Your task to perform on an android device: check storage Image 0: 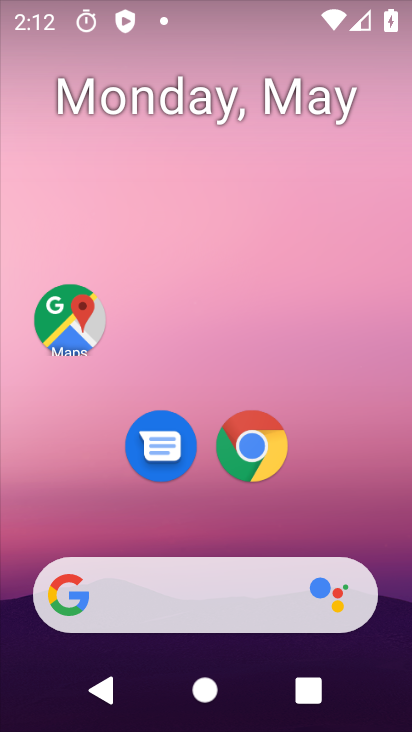
Step 0: drag from (213, 583) to (210, 20)
Your task to perform on an android device: check storage Image 1: 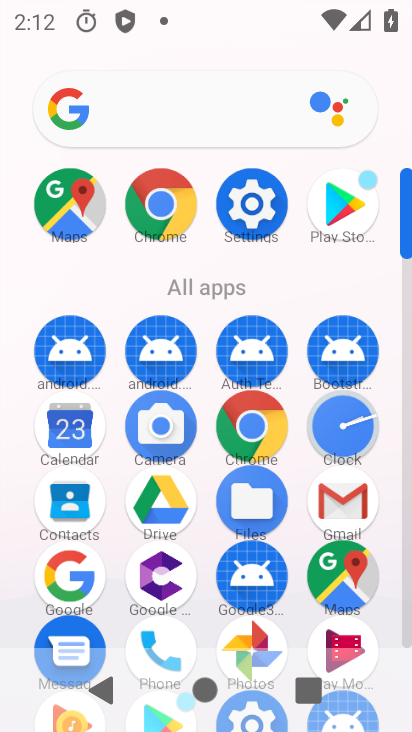
Step 1: click (232, 187)
Your task to perform on an android device: check storage Image 2: 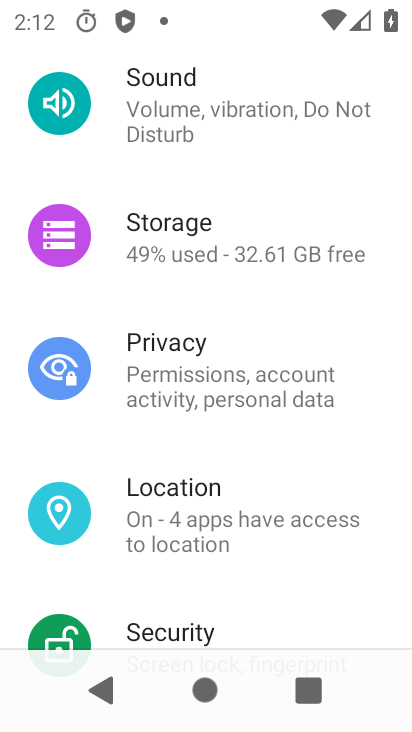
Step 2: click (188, 255)
Your task to perform on an android device: check storage Image 3: 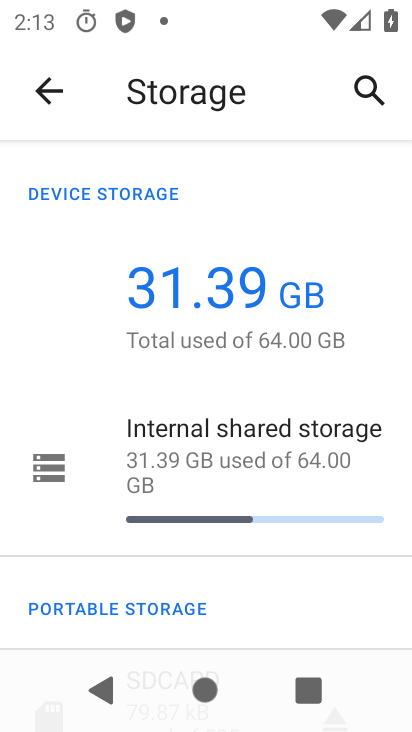
Step 3: task complete